Your task to perform on an android device: find snoozed emails in the gmail app Image 0: 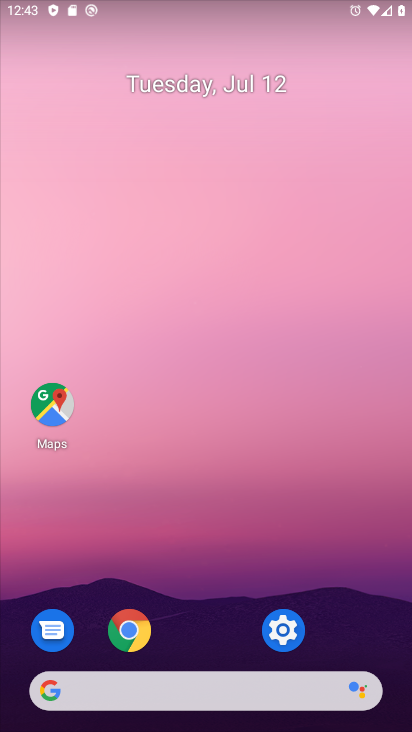
Step 0: drag from (265, 716) to (368, 142)
Your task to perform on an android device: find snoozed emails in the gmail app Image 1: 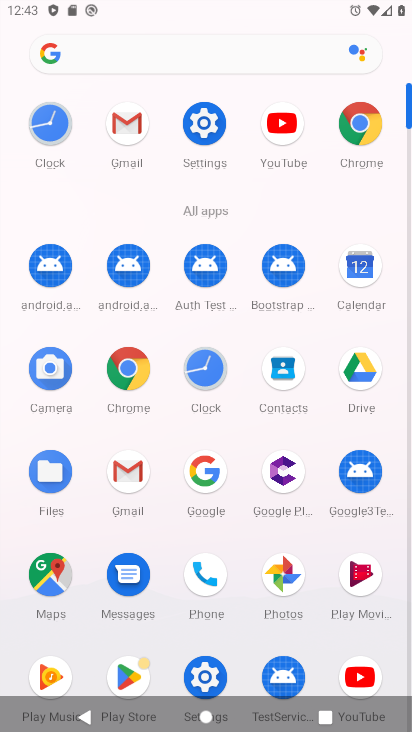
Step 1: drag from (122, 137) to (207, 590)
Your task to perform on an android device: find snoozed emails in the gmail app Image 2: 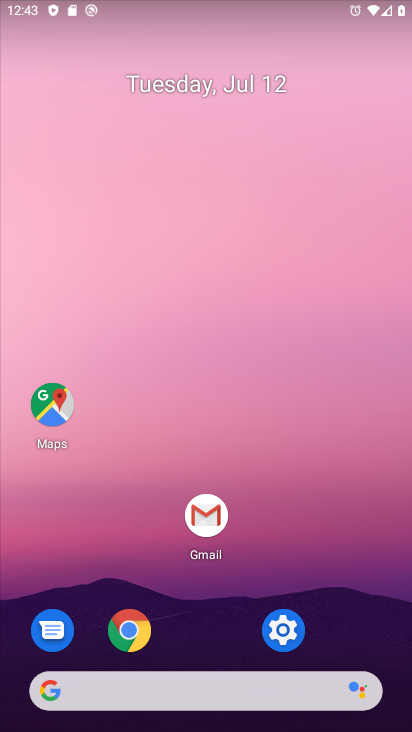
Step 2: drag from (211, 507) to (219, 618)
Your task to perform on an android device: find snoozed emails in the gmail app Image 3: 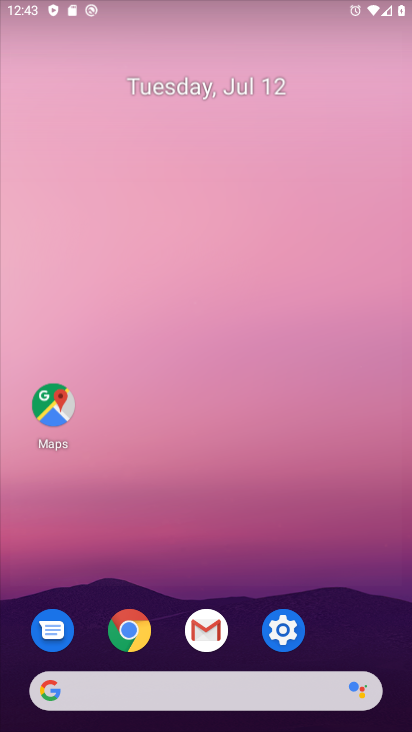
Step 3: click (202, 629)
Your task to perform on an android device: find snoozed emails in the gmail app Image 4: 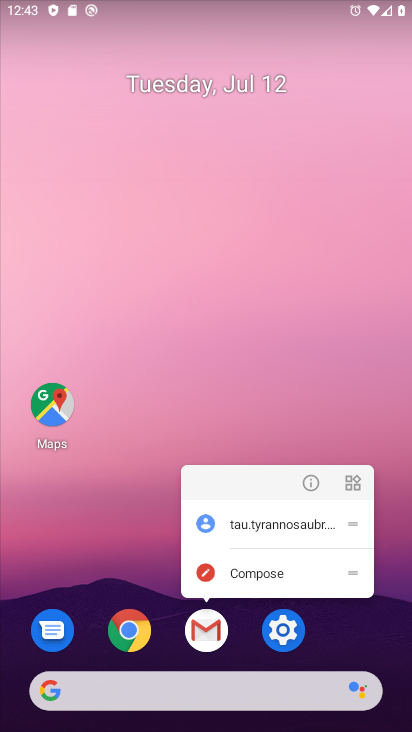
Step 4: click (202, 635)
Your task to perform on an android device: find snoozed emails in the gmail app Image 5: 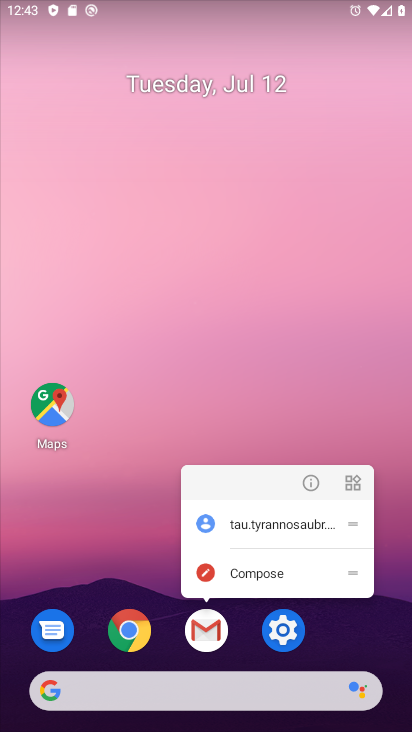
Step 5: click (209, 599)
Your task to perform on an android device: find snoozed emails in the gmail app Image 6: 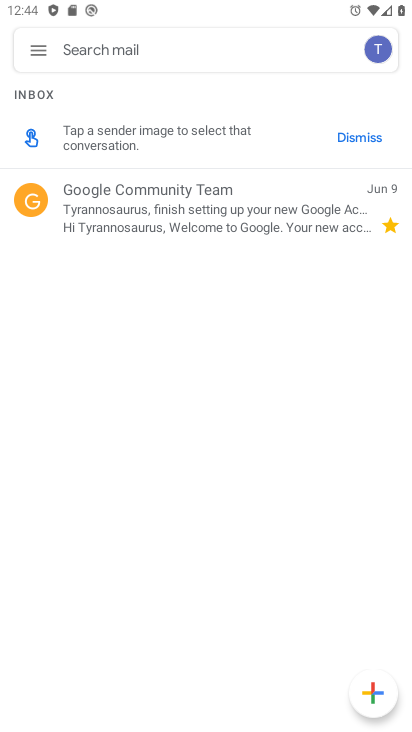
Step 6: click (38, 55)
Your task to perform on an android device: find snoozed emails in the gmail app Image 7: 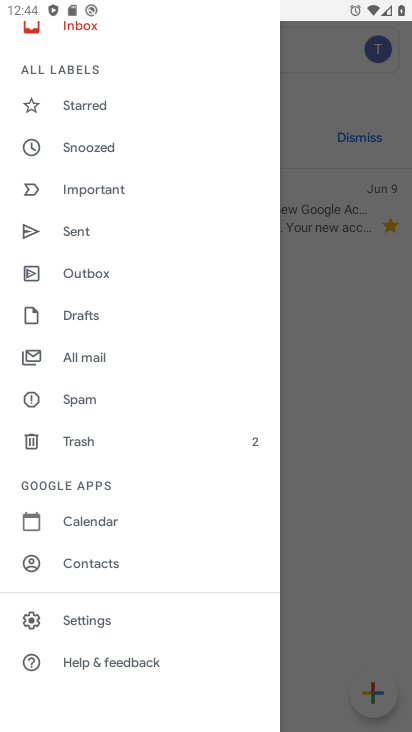
Step 7: click (90, 151)
Your task to perform on an android device: find snoozed emails in the gmail app Image 8: 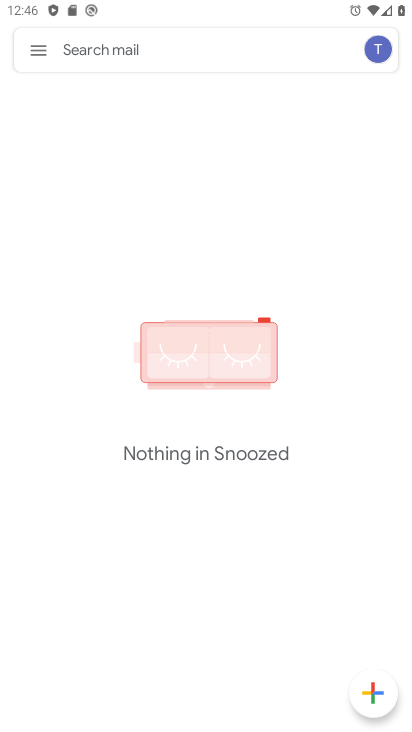
Step 8: task complete